Your task to perform on an android device: Is it going to rain tomorrow? Image 0: 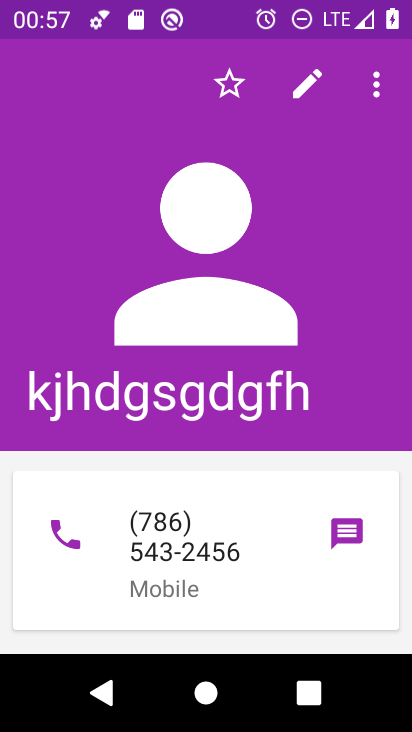
Step 0: press home button
Your task to perform on an android device: Is it going to rain tomorrow? Image 1: 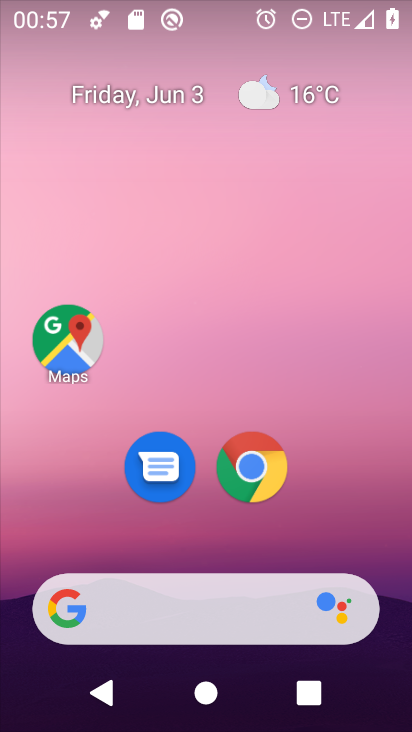
Step 1: click (308, 95)
Your task to perform on an android device: Is it going to rain tomorrow? Image 2: 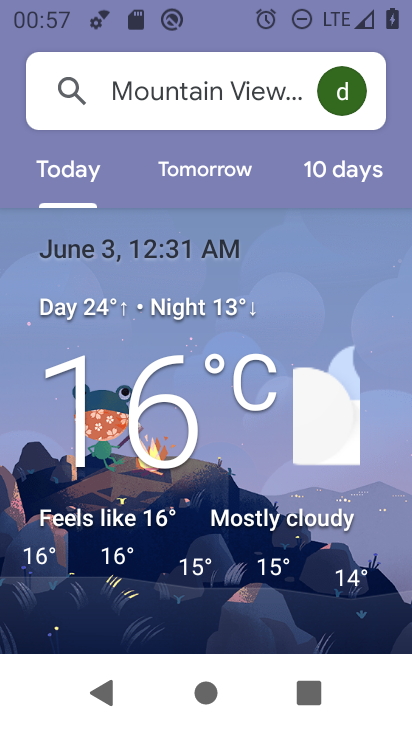
Step 2: click (204, 174)
Your task to perform on an android device: Is it going to rain tomorrow? Image 3: 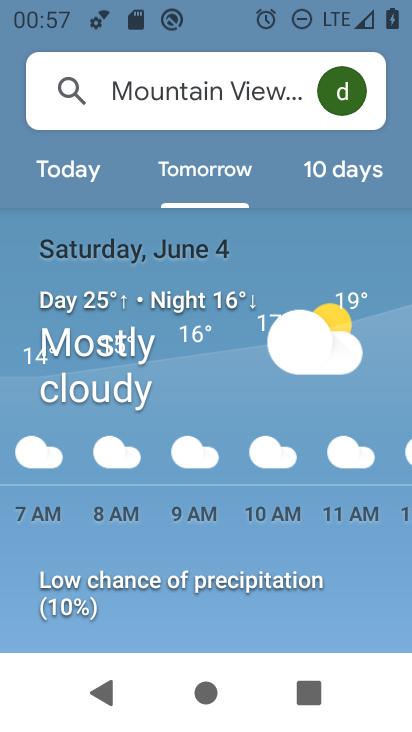
Step 3: task complete